Your task to perform on an android device: How much does a 2 bedroom apartment rent for in San Francisco? Image 0: 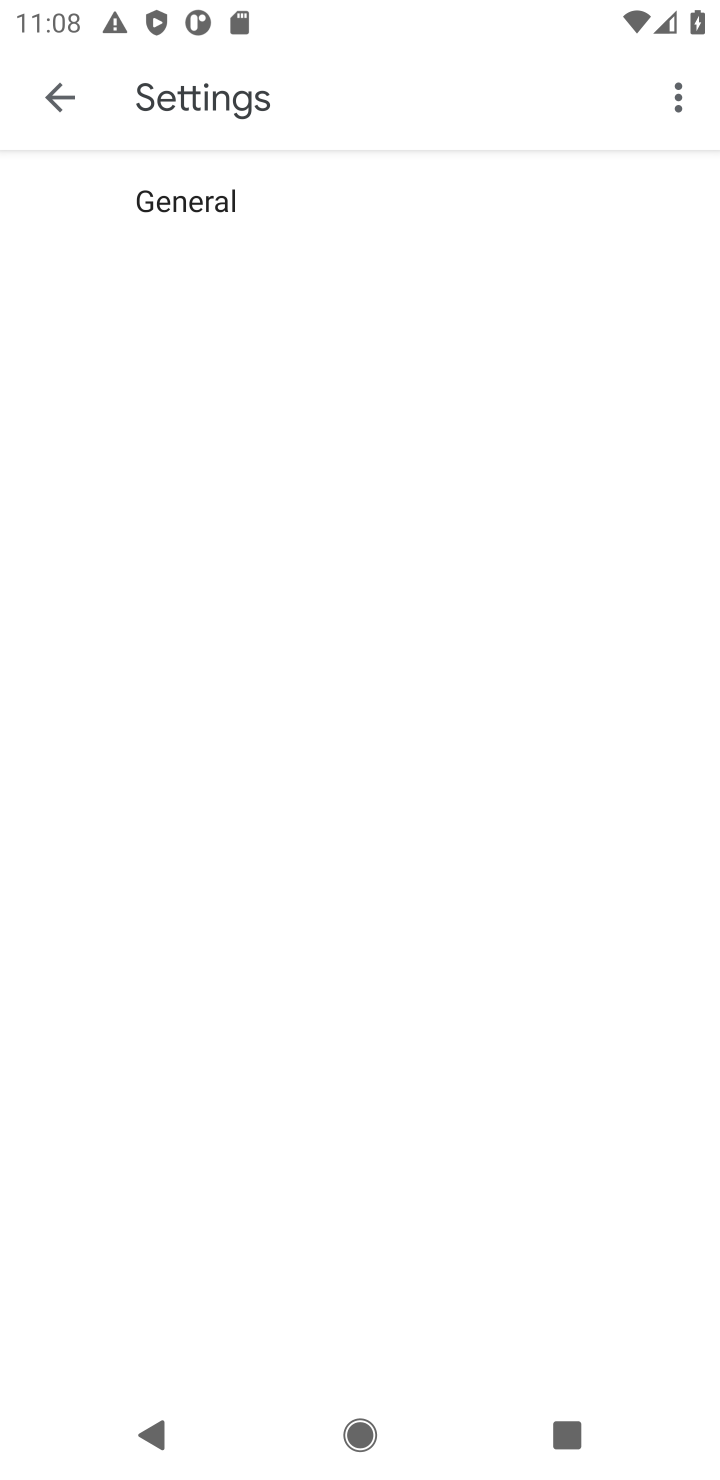
Step 0: press home button
Your task to perform on an android device: How much does a 2 bedroom apartment rent for in San Francisco? Image 1: 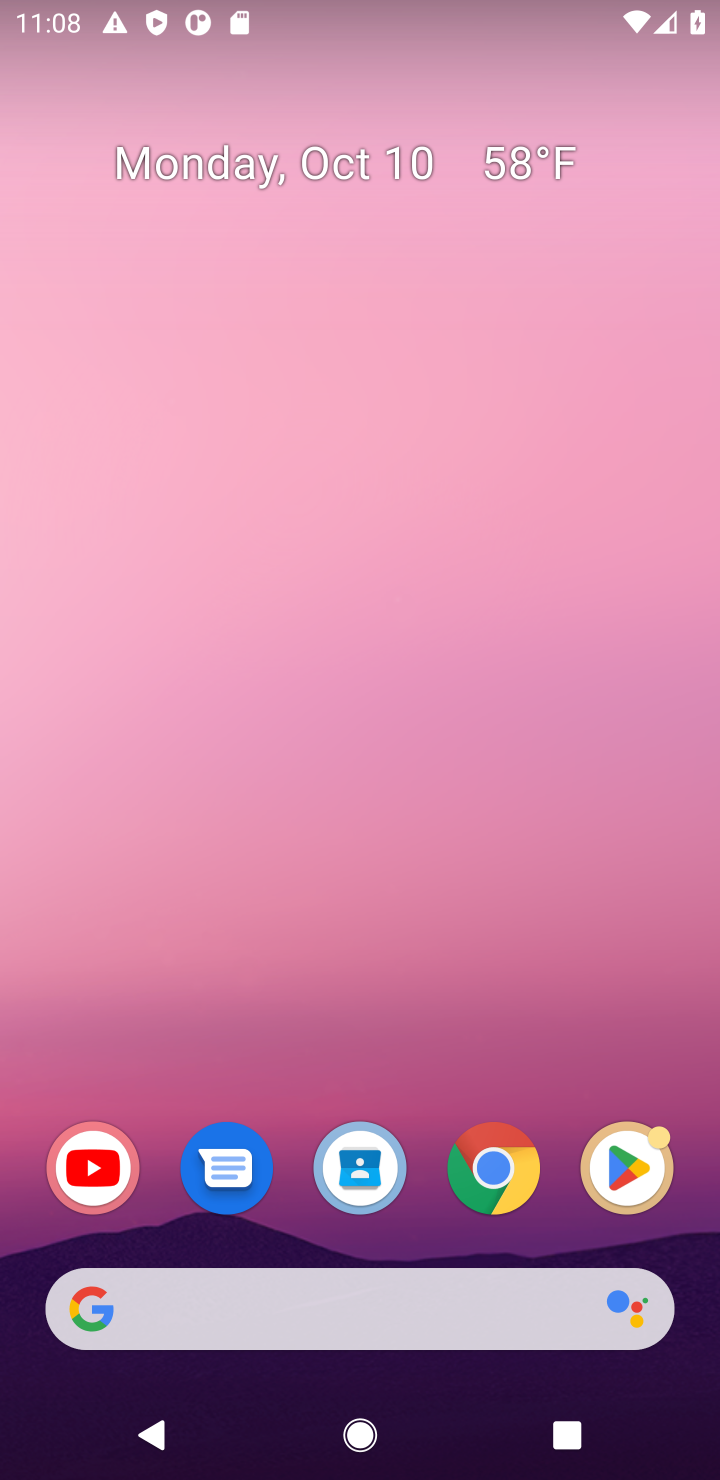
Step 1: click (257, 1311)
Your task to perform on an android device: How much does a 2 bedroom apartment rent for in San Francisco? Image 2: 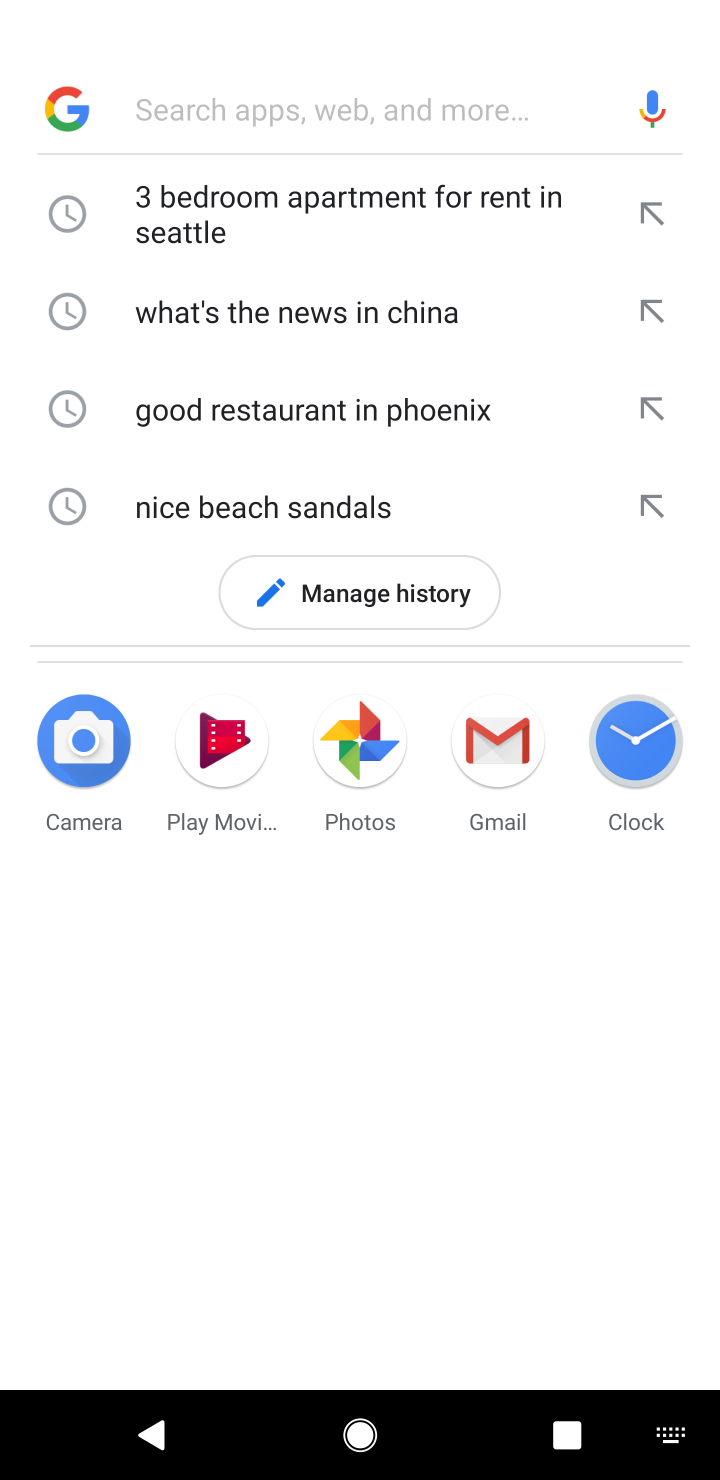
Step 2: type "2 bedroom apartment rent for in San Francisco"
Your task to perform on an android device: How much does a 2 bedroom apartment rent for in San Francisco? Image 3: 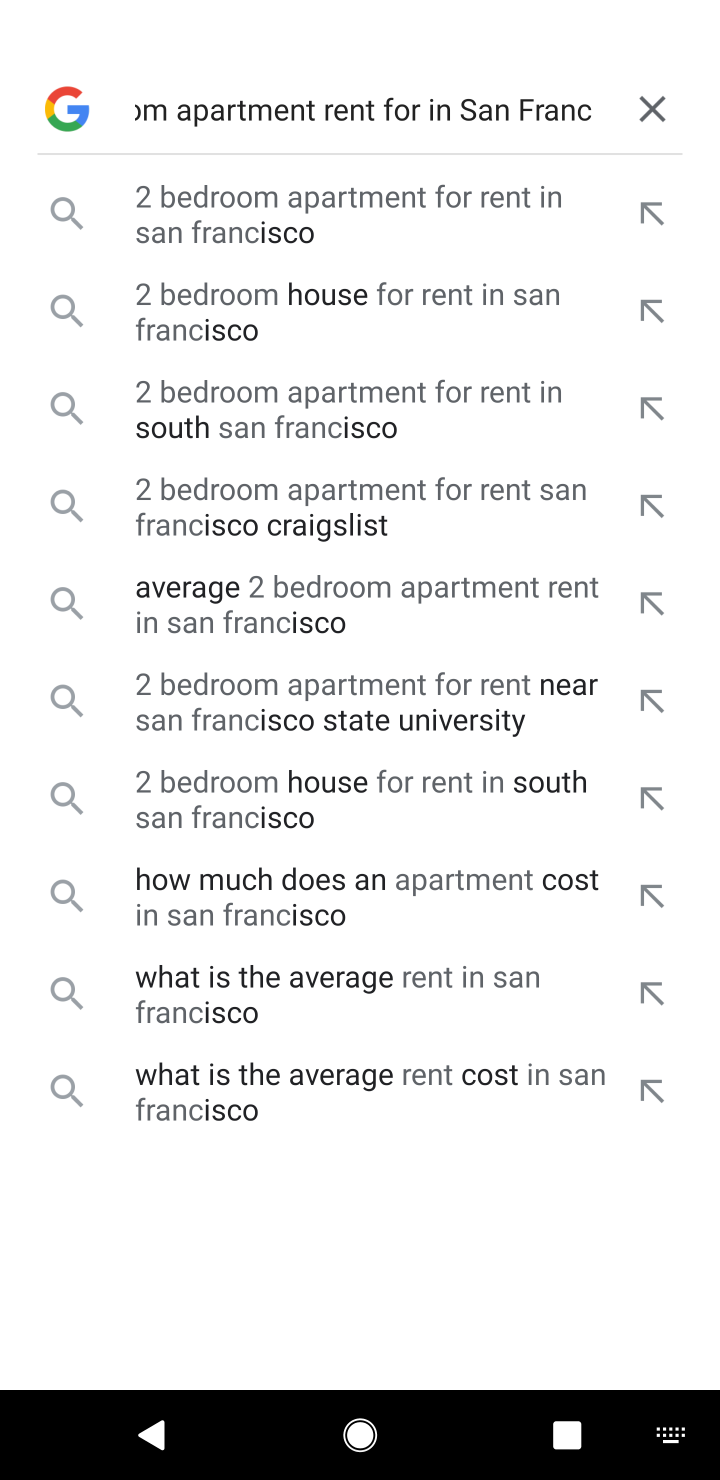
Step 3: type ""
Your task to perform on an android device: How much does a 2 bedroom apartment rent for in San Francisco? Image 4: 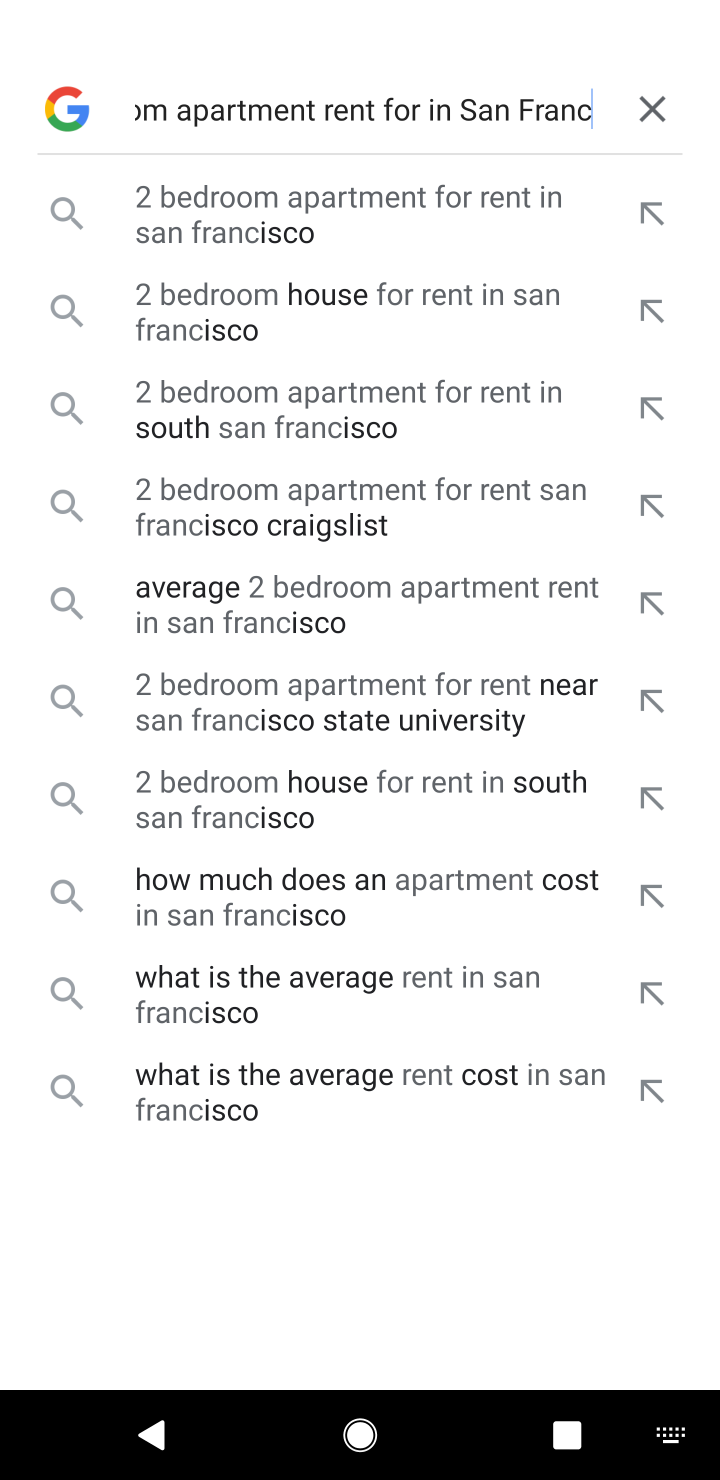
Step 4: click (270, 226)
Your task to perform on an android device: How much does a 2 bedroom apartment rent for in San Francisco? Image 5: 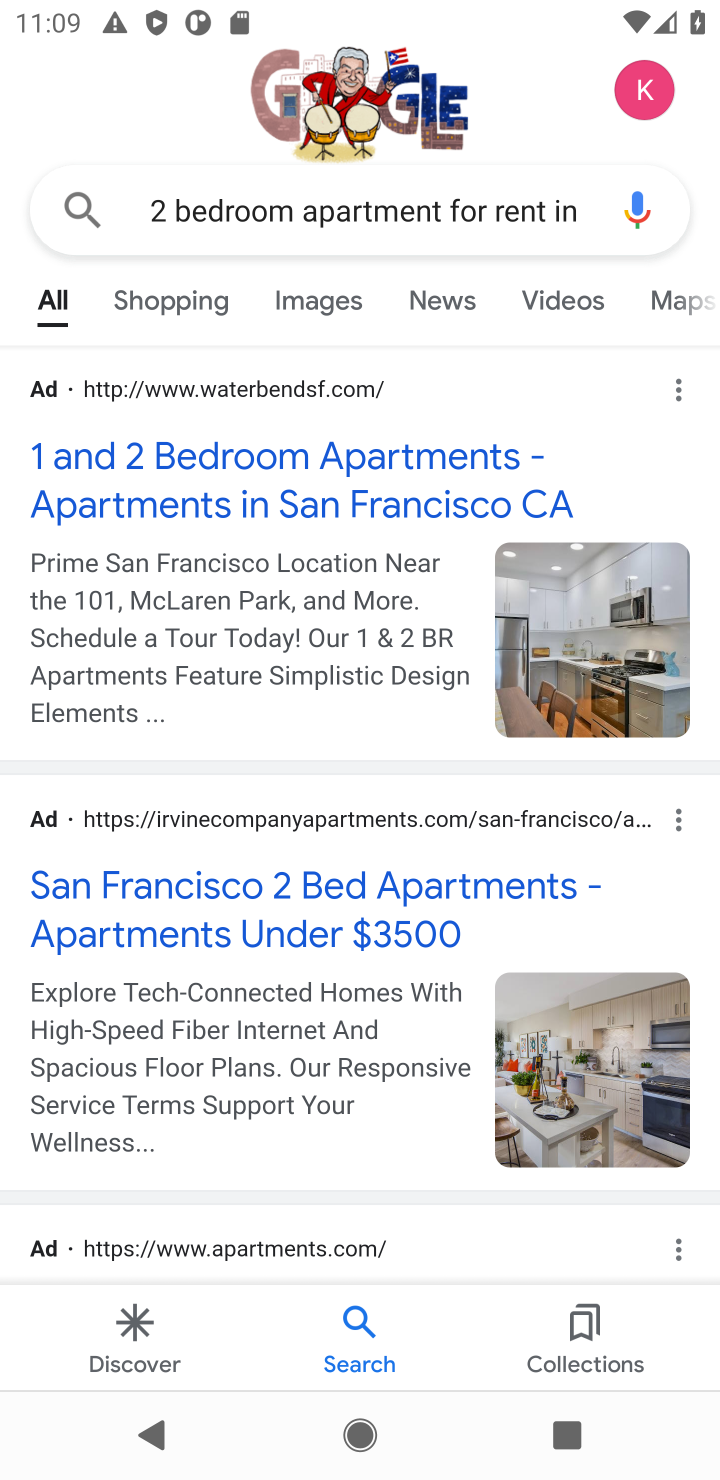
Step 5: drag from (293, 951) to (232, 431)
Your task to perform on an android device: How much does a 2 bedroom apartment rent for in San Francisco? Image 6: 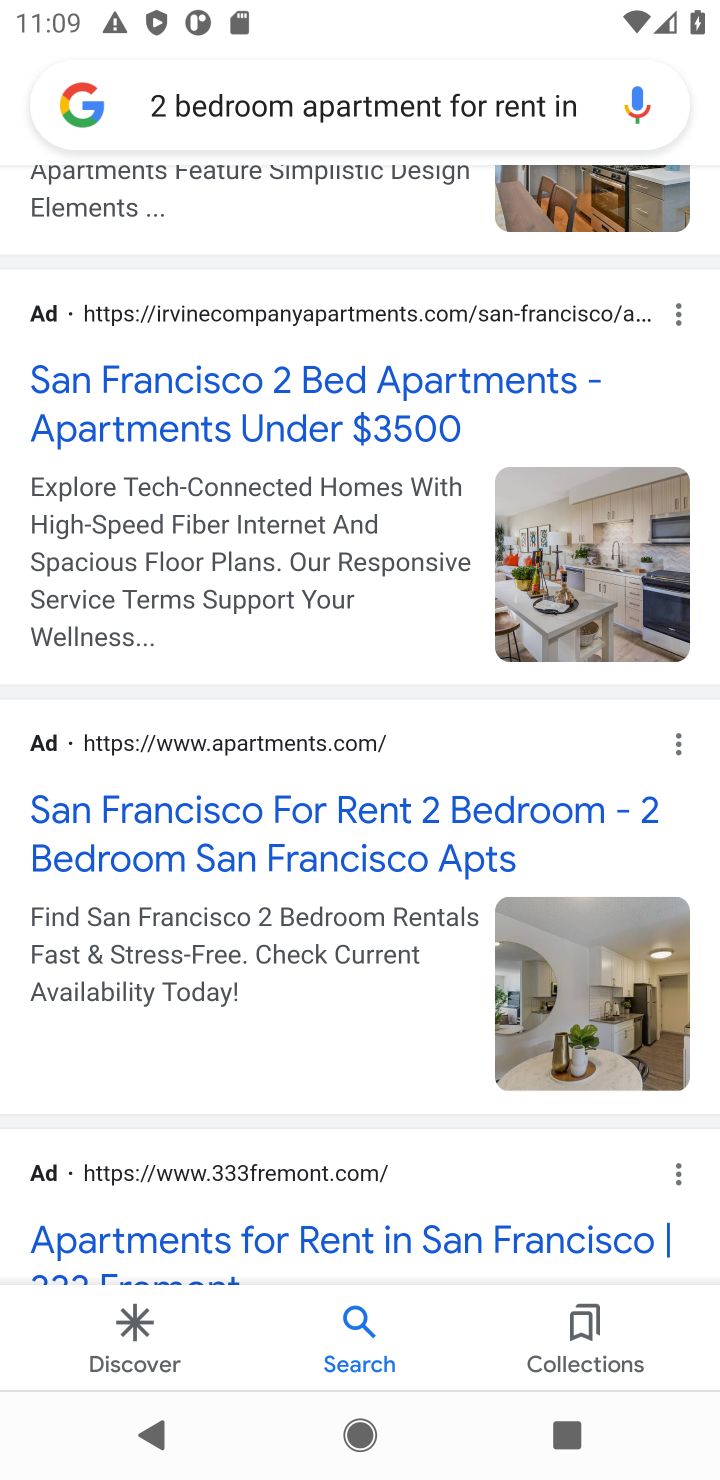
Step 6: drag from (216, 770) to (206, 349)
Your task to perform on an android device: How much does a 2 bedroom apartment rent for in San Francisco? Image 7: 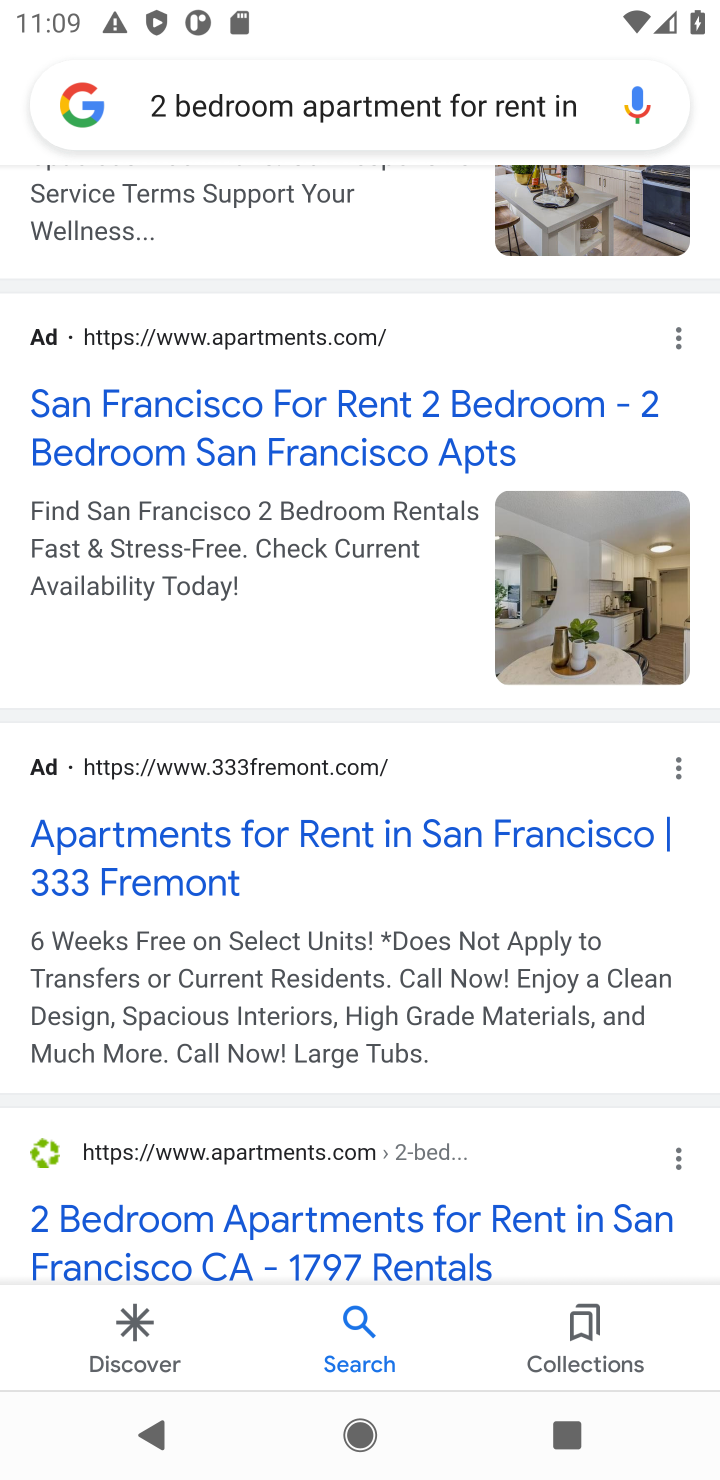
Step 7: drag from (225, 944) to (257, 507)
Your task to perform on an android device: How much does a 2 bedroom apartment rent for in San Francisco? Image 8: 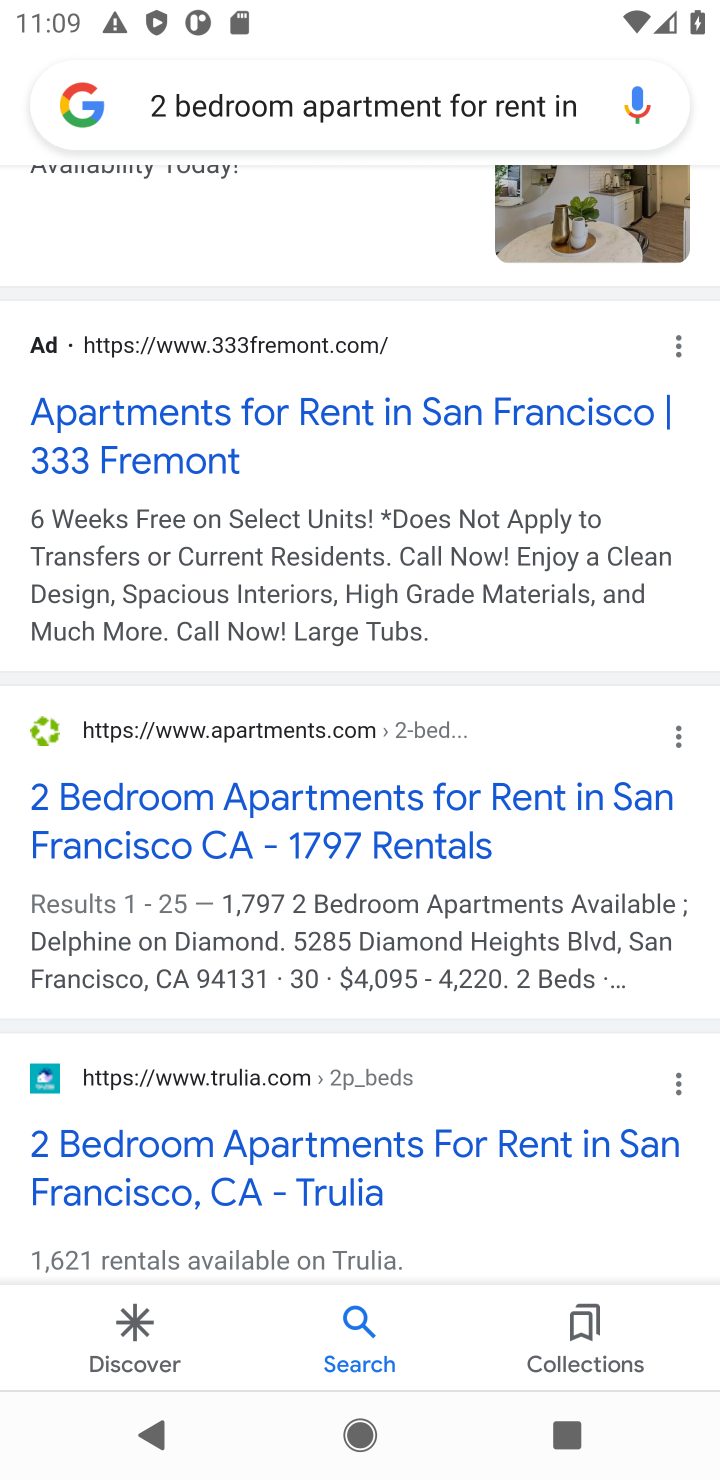
Step 8: click (250, 808)
Your task to perform on an android device: How much does a 2 bedroom apartment rent for in San Francisco? Image 9: 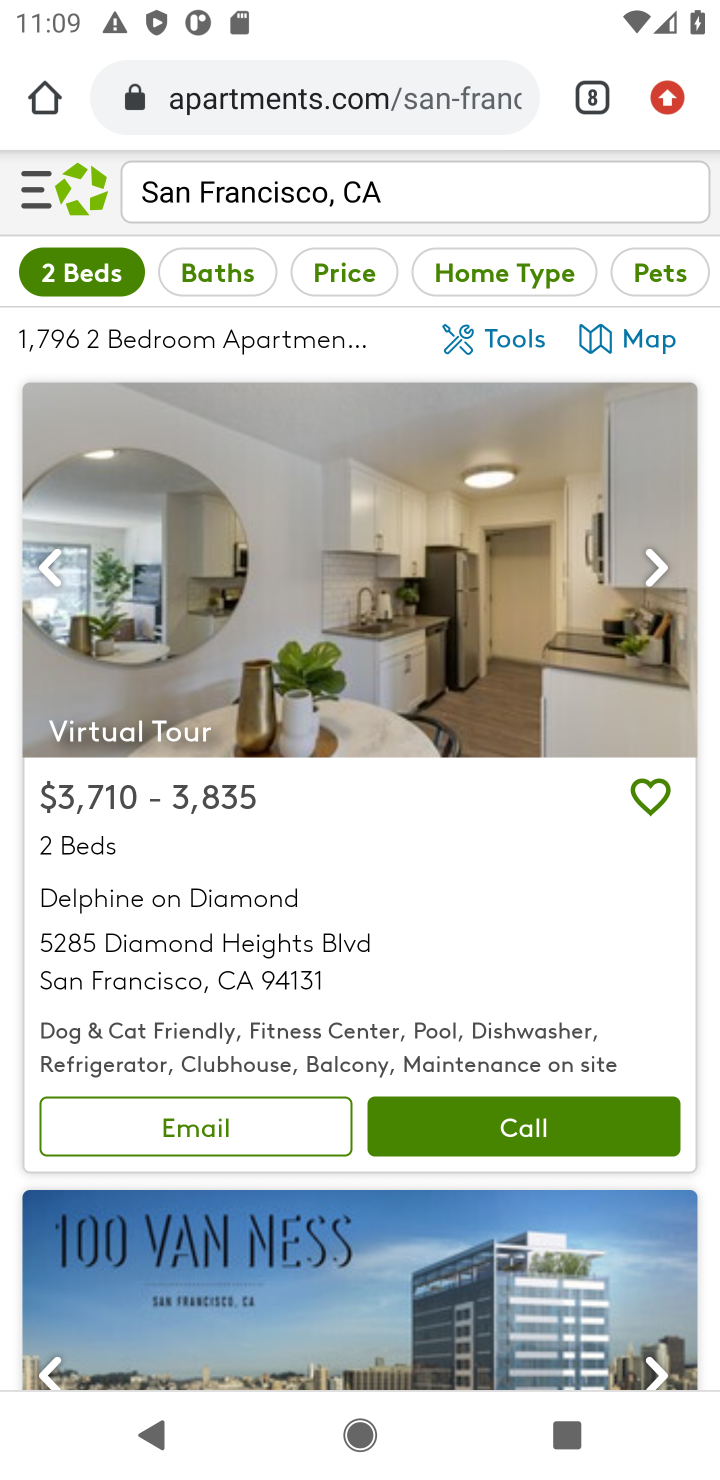
Step 9: task complete